Your task to perform on an android device: turn on showing notifications on the lock screen Image 0: 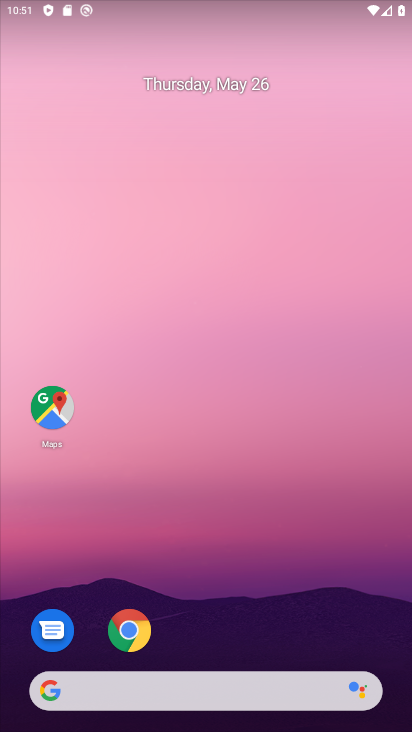
Step 0: drag from (274, 618) to (238, 126)
Your task to perform on an android device: turn on showing notifications on the lock screen Image 1: 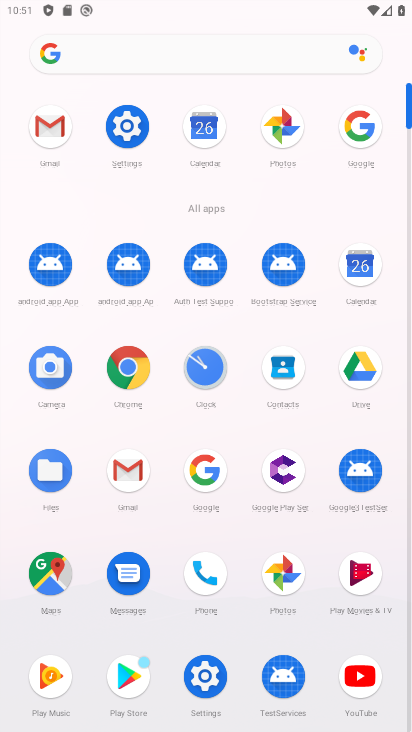
Step 1: click (127, 125)
Your task to perform on an android device: turn on showing notifications on the lock screen Image 2: 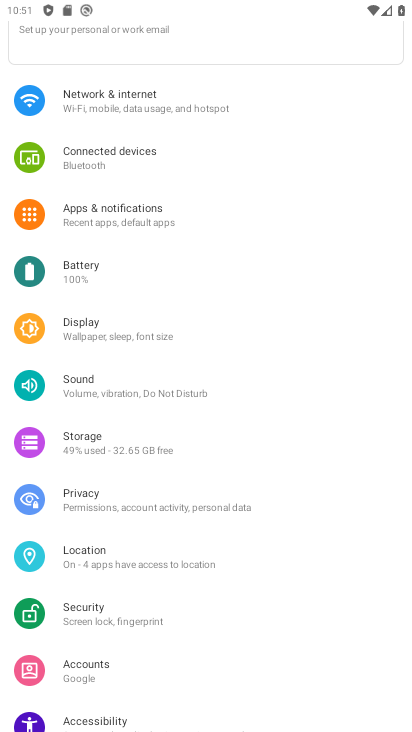
Step 2: click (125, 220)
Your task to perform on an android device: turn on showing notifications on the lock screen Image 3: 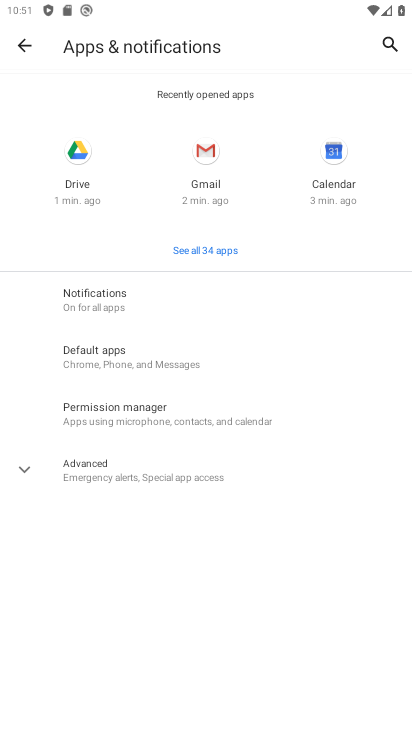
Step 3: click (102, 295)
Your task to perform on an android device: turn on showing notifications on the lock screen Image 4: 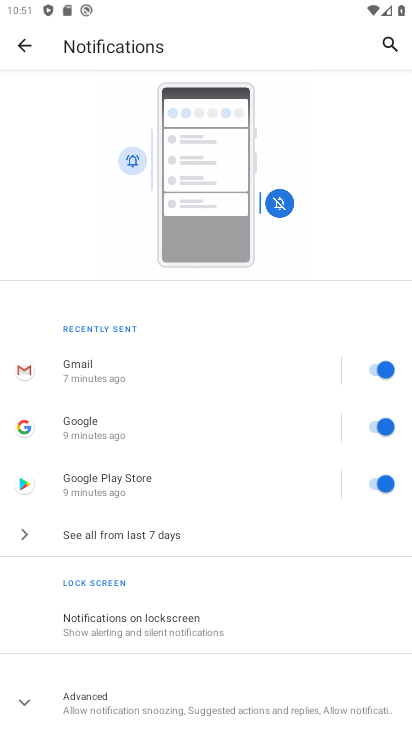
Step 4: click (120, 625)
Your task to perform on an android device: turn on showing notifications on the lock screen Image 5: 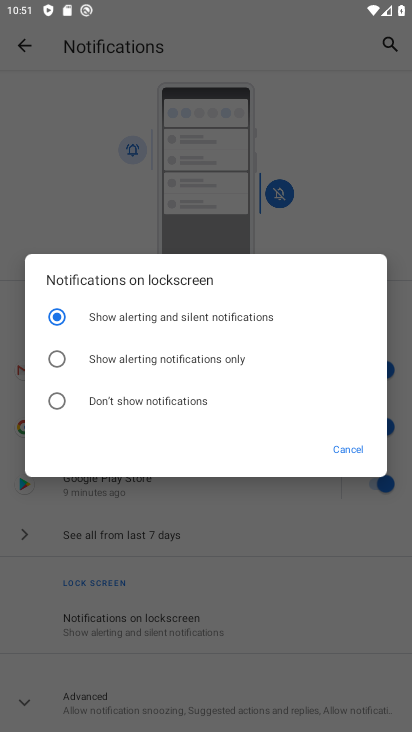
Step 5: click (63, 318)
Your task to perform on an android device: turn on showing notifications on the lock screen Image 6: 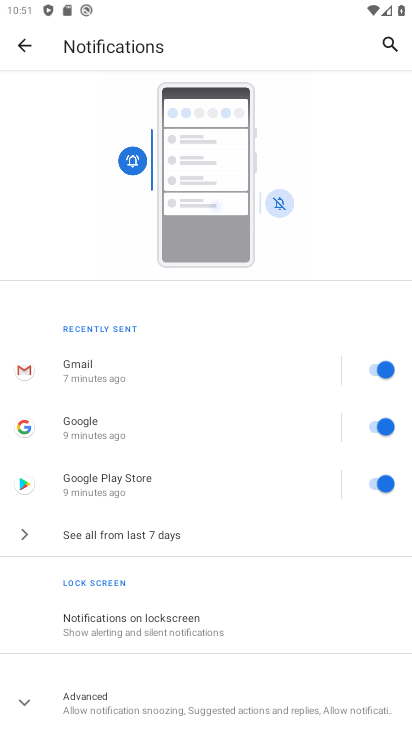
Step 6: task complete